Your task to perform on an android device: add a label to a message in the gmail app Image 0: 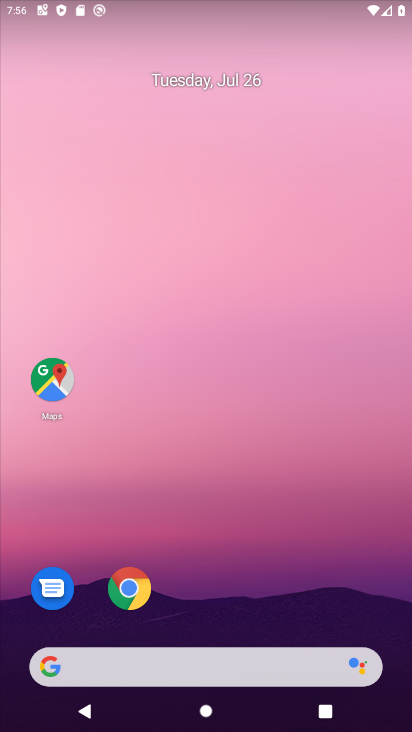
Step 0: drag from (285, 576) to (276, 54)
Your task to perform on an android device: add a label to a message in the gmail app Image 1: 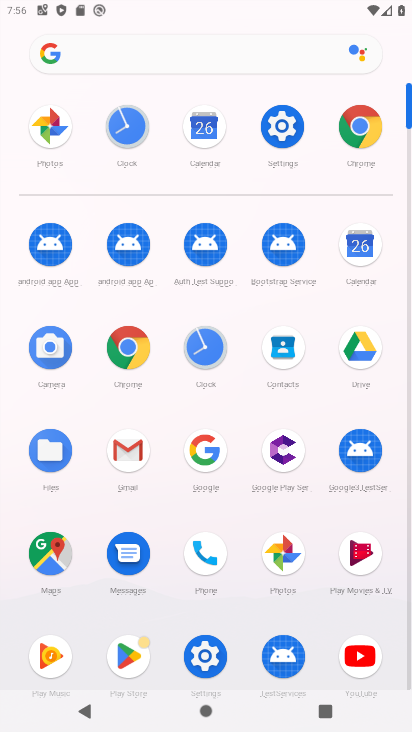
Step 1: click (134, 450)
Your task to perform on an android device: add a label to a message in the gmail app Image 2: 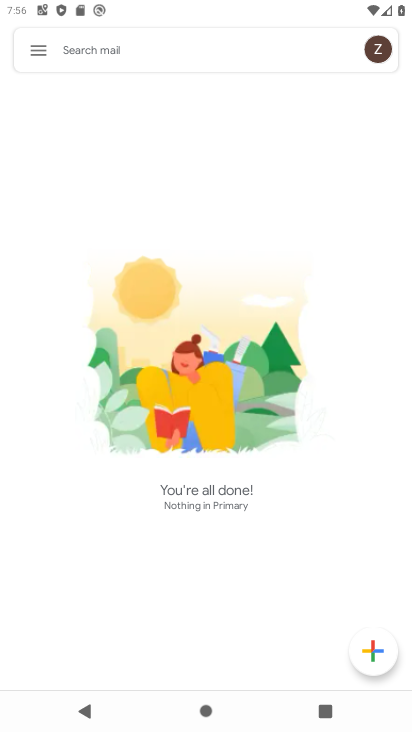
Step 2: task complete